Your task to perform on an android device: open app "Speedtest by Ookla" Image 0: 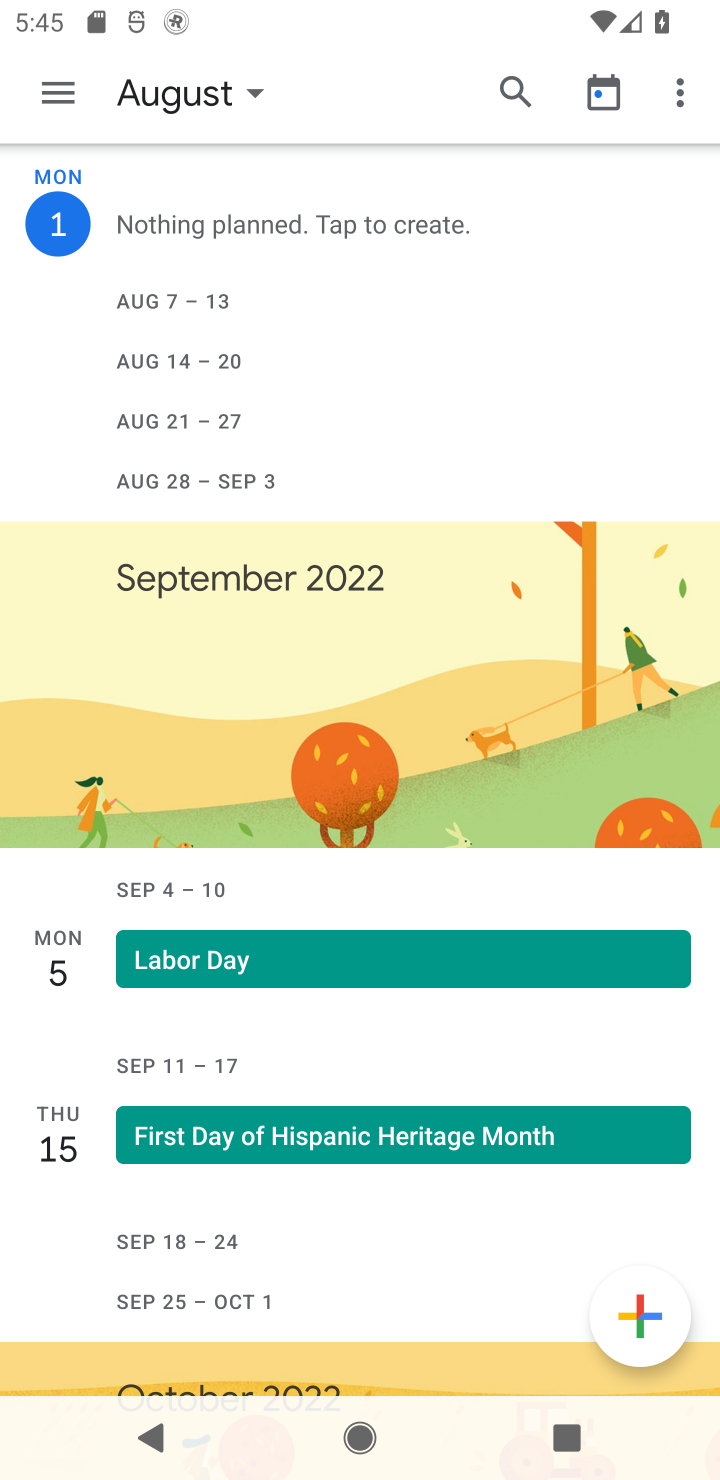
Step 0: press home button
Your task to perform on an android device: open app "Speedtest by Ookla" Image 1: 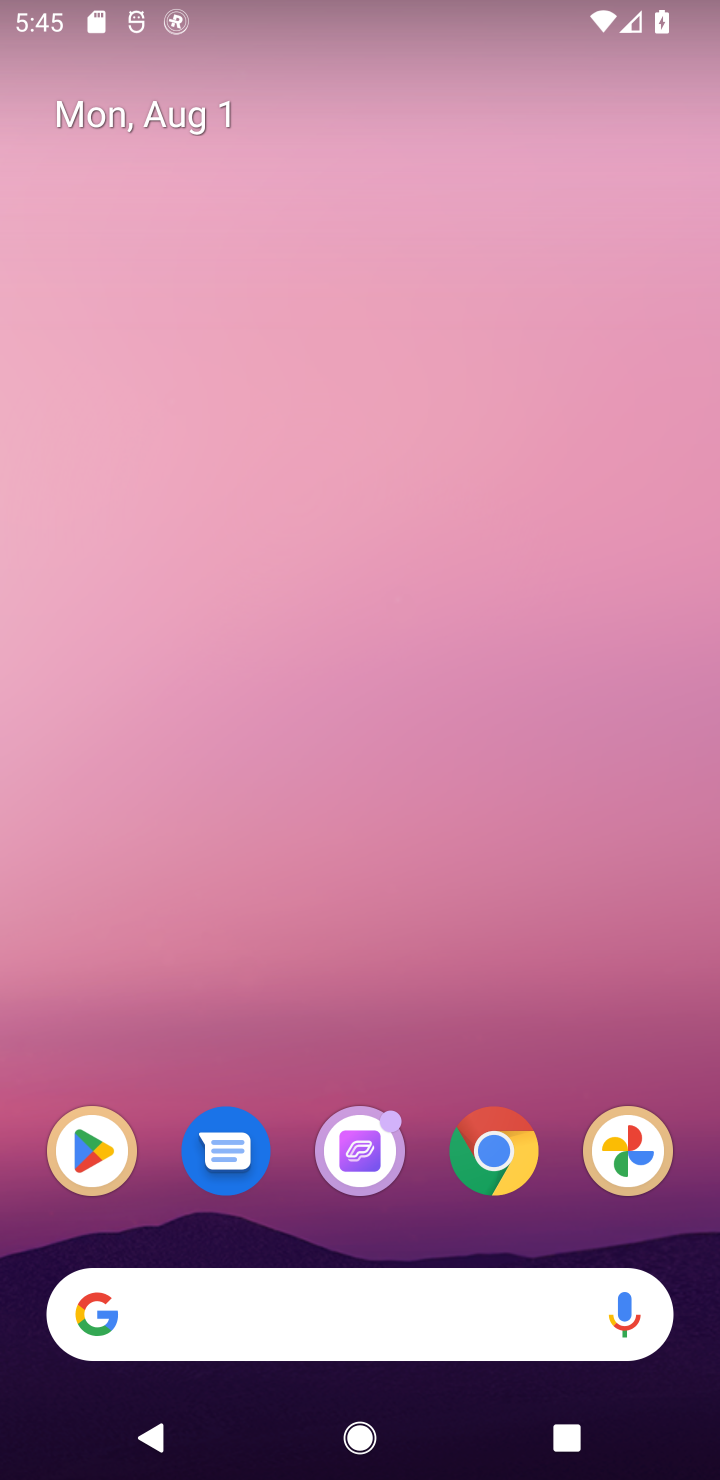
Step 1: click (84, 1155)
Your task to perform on an android device: open app "Speedtest by Ookla" Image 2: 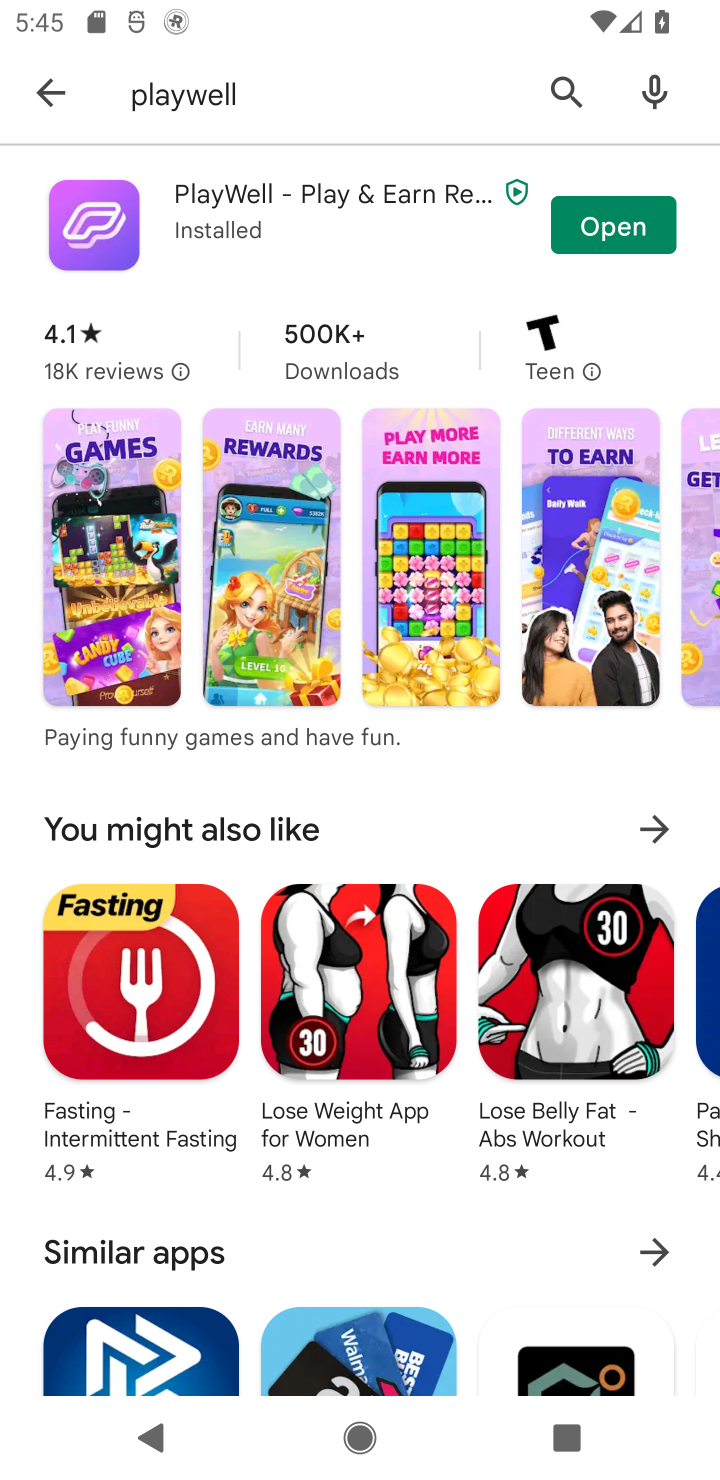
Step 2: click (569, 91)
Your task to perform on an android device: open app "Speedtest by Ookla" Image 3: 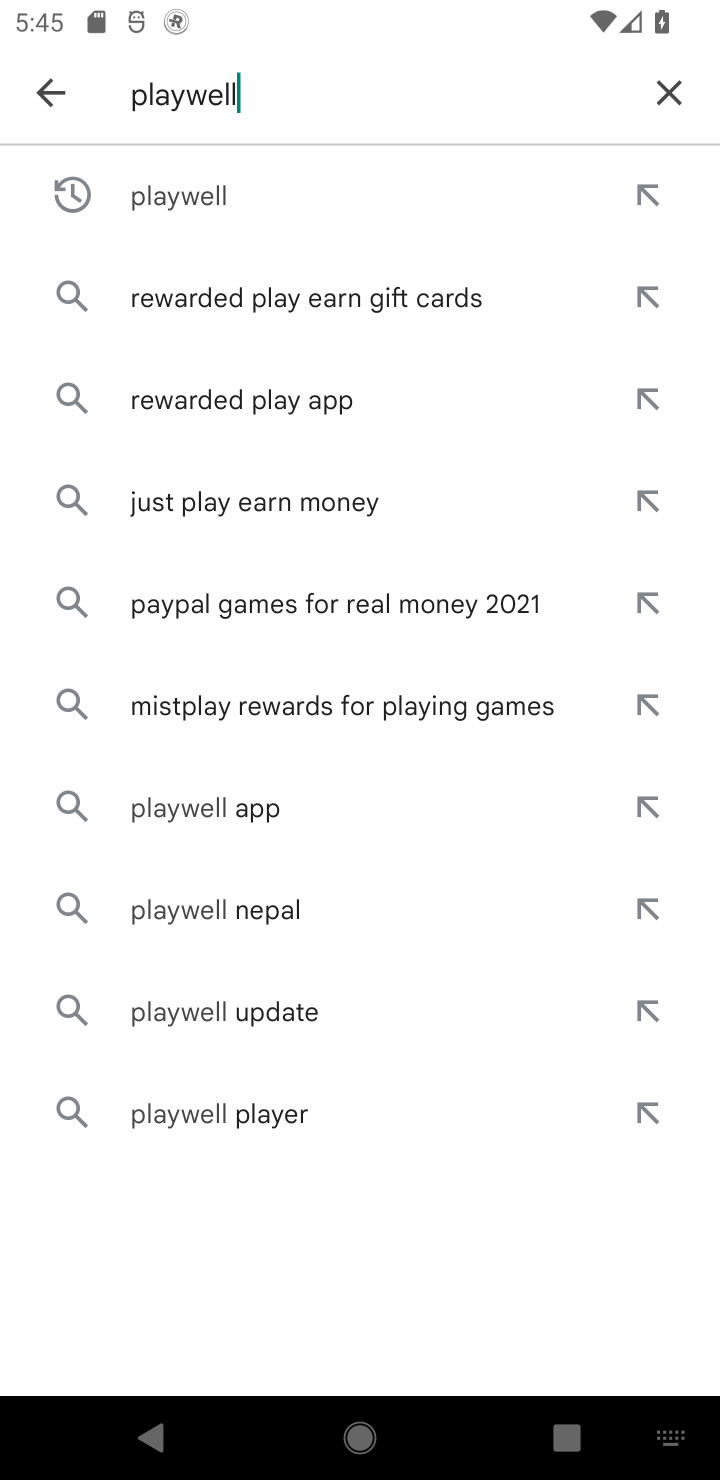
Step 3: click (665, 101)
Your task to perform on an android device: open app "Speedtest by Ookla" Image 4: 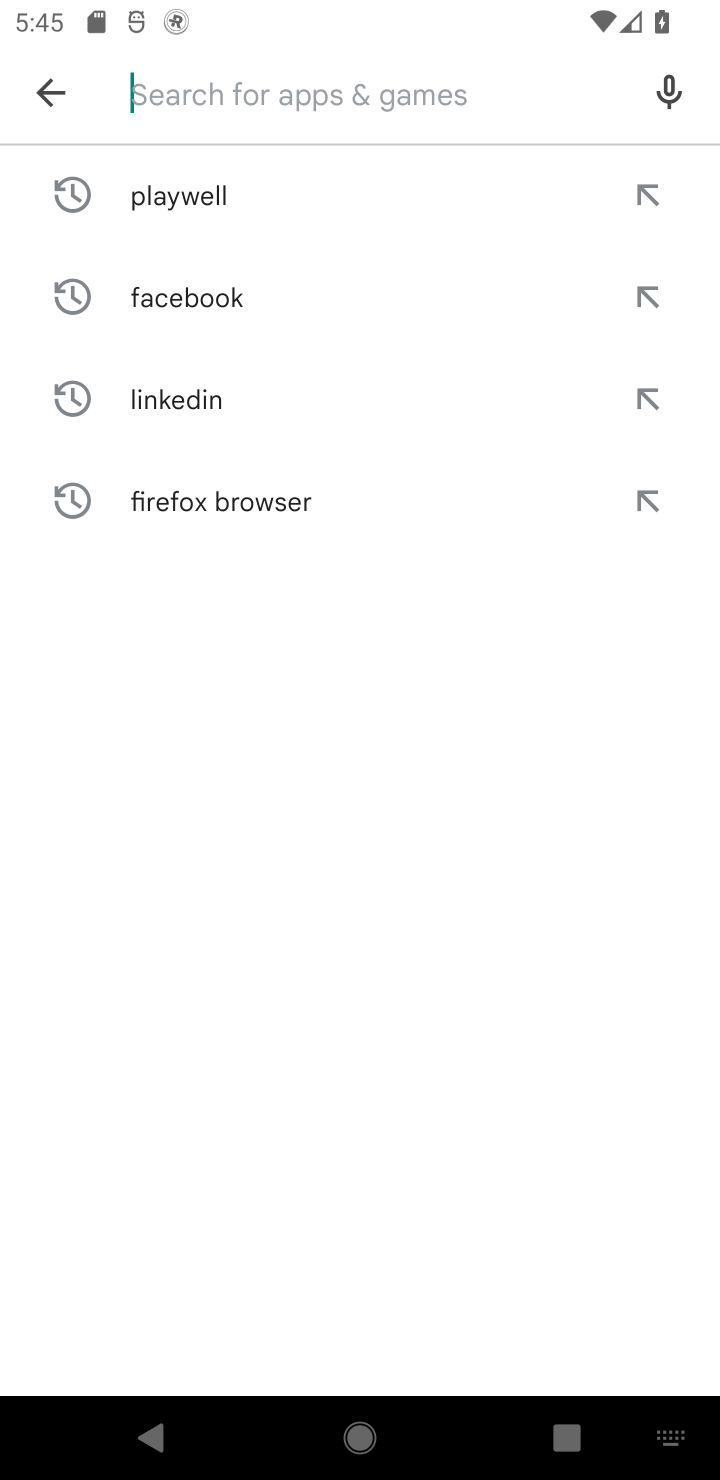
Step 4: type "Speedtest by Ookla"
Your task to perform on an android device: open app "Speedtest by Ookla" Image 5: 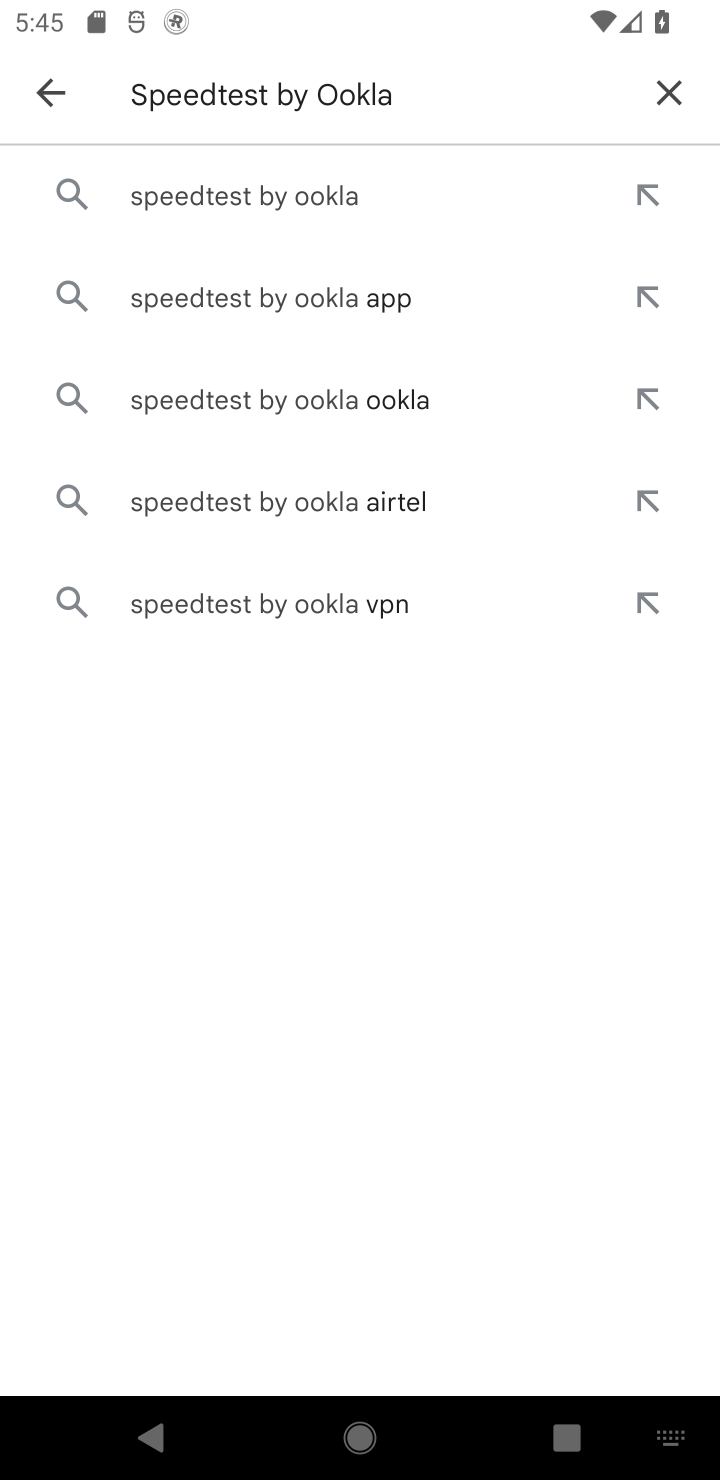
Step 5: click (303, 225)
Your task to perform on an android device: open app "Speedtest by Ookla" Image 6: 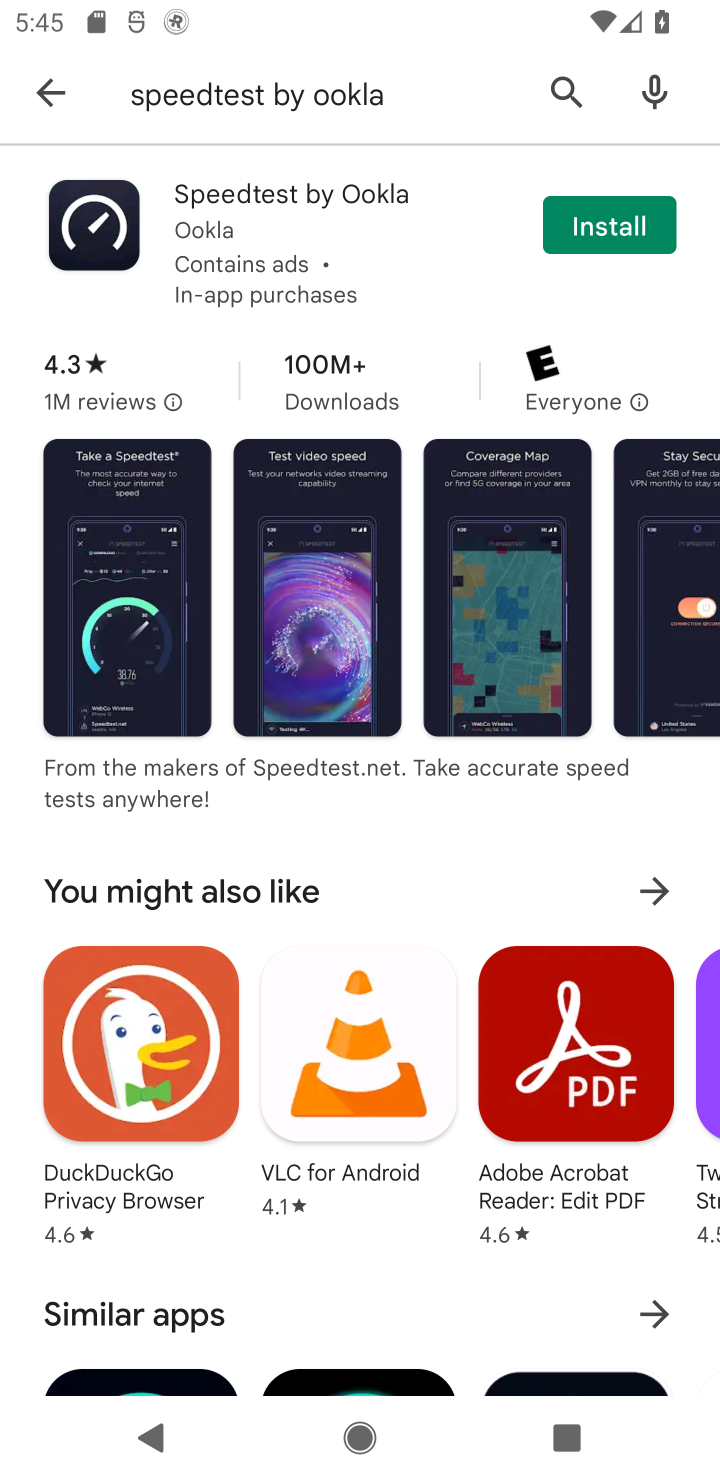
Step 6: task complete